Your task to perform on an android device: Open CNN.com Image 0: 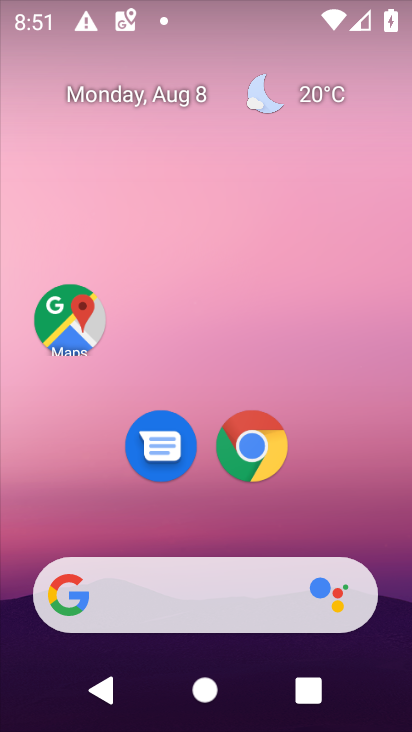
Step 0: click (257, 446)
Your task to perform on an android device: Open CNN.com Image 1: 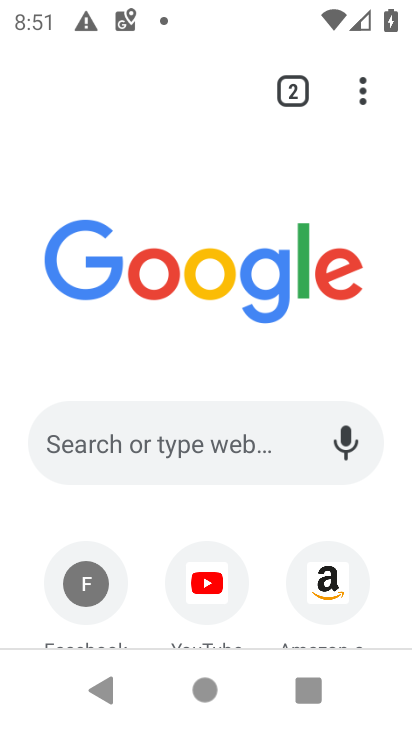
Step 1: click (257, 446)
Your task to perform on an android device: Open CNN.com Image 2: 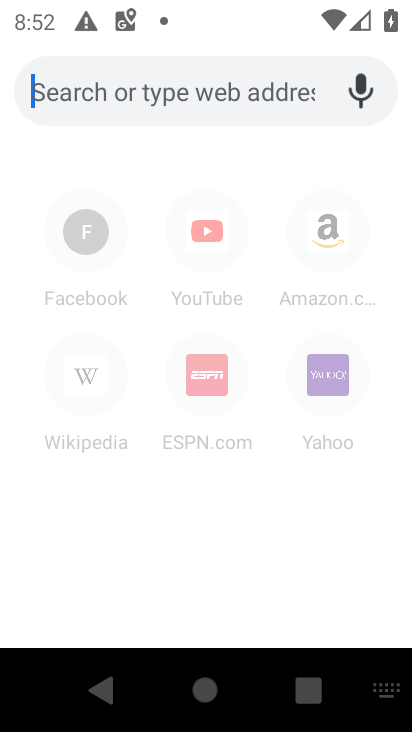
Step 2: type "cnn.com"
Your task to perform on an android device: Open CNN.com Image 3: 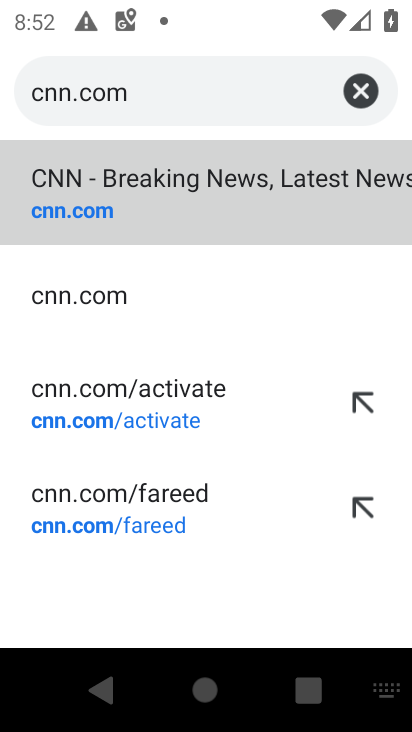
Step 3: click (46, 200)
Your task to perform on an android device: Open CNN.com Image 4: 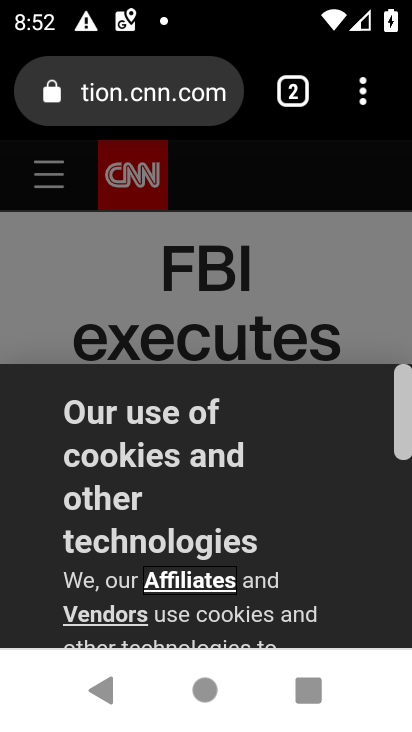
Step 4: drag from (277, 586) to (300, 359)
Your task to perform on an android device: Open CNN.com Image 5: 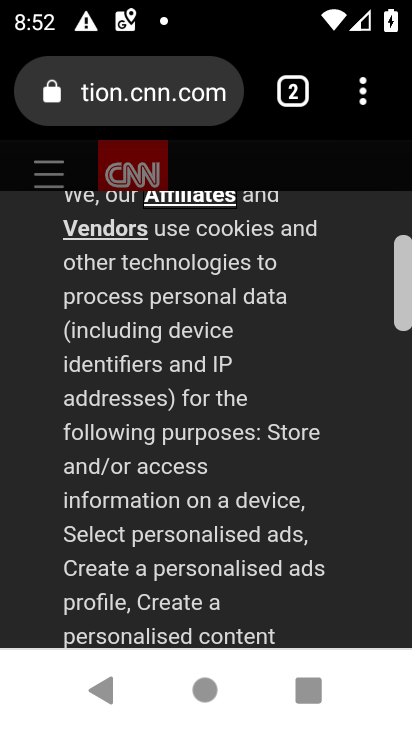
Step 5: drag from (267, 584) to (294, 250)
Your task to perform on an android device: Open CNN.com Image 6: 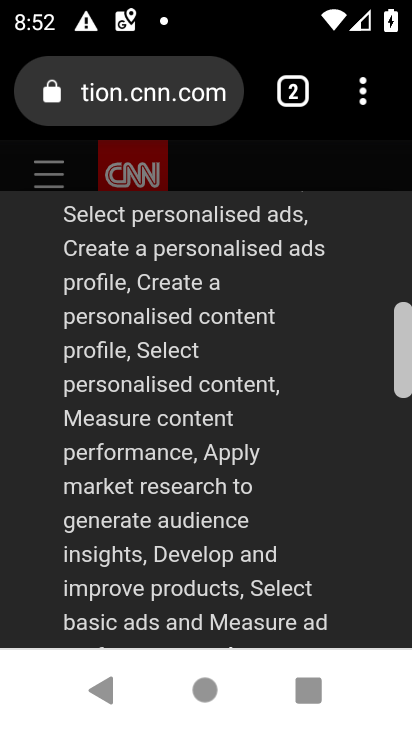
Step 6: drag from (286, 587) to (275, 216)
Your task to perform on an android device: Open CNN.com Image 7: 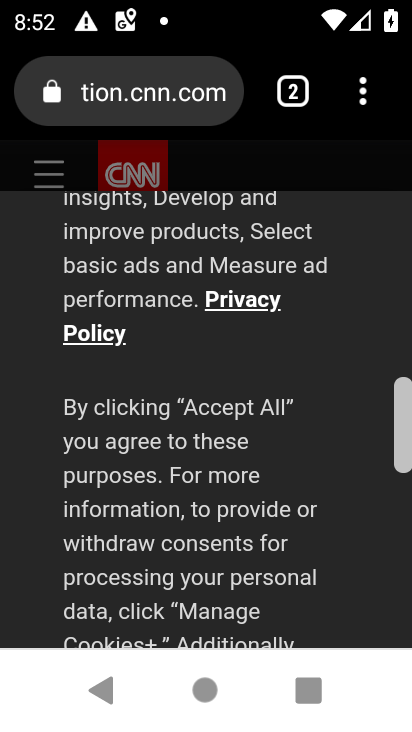
Step 7: drag from (267, 578) to (279, 139)
Your task to perform on an android device: Open CNN.com Image 8: 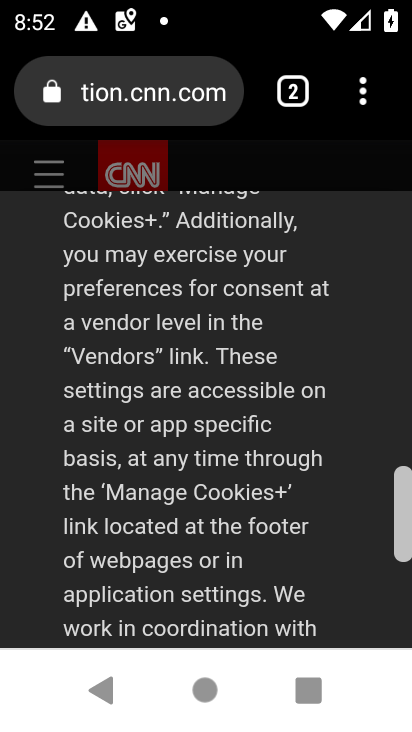
Step 8: drag from (284, 618) to (282, 198)
Your task to perform on an android device: Open CNN.com Image 9: 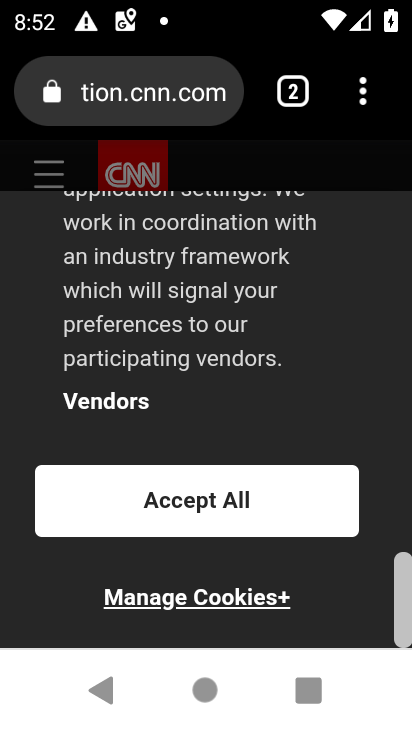
Step 9: click (188, 501)
Your task to perform on an android device: Open CNN.com Image 10: 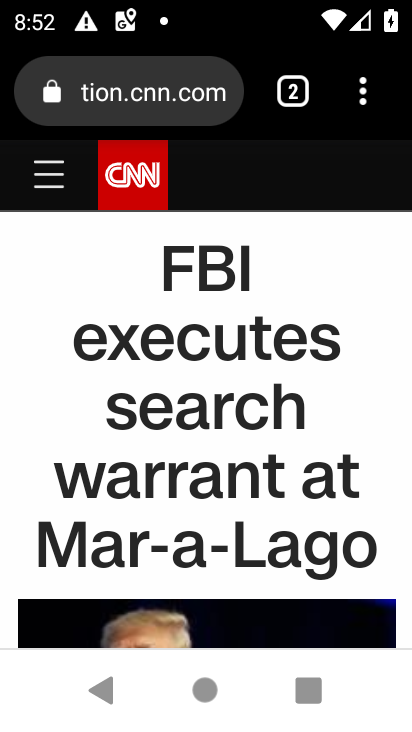
Step 10: task complete